Your task to perform on an android device: Open Reddit.com Image 0: 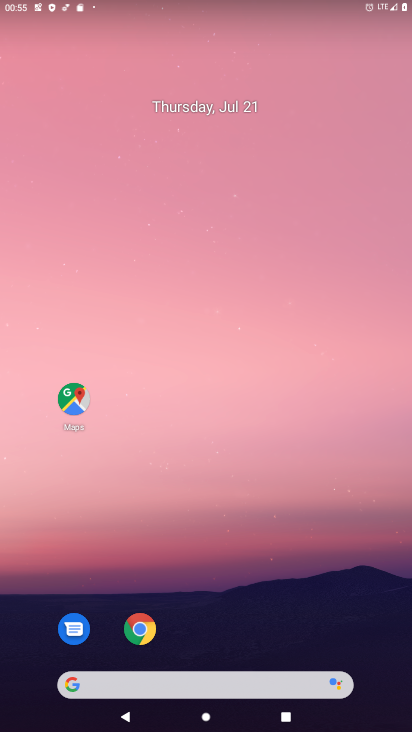
Step 0: click (226, 80)
Your task to perform on an android device: Open Reddit.com Image 1: 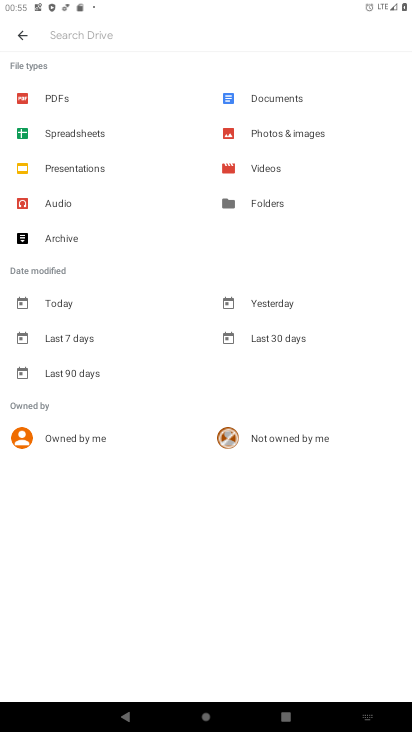
Step 1: press home button
Your task to perform on an android device: Open Reddit.com Image 2: 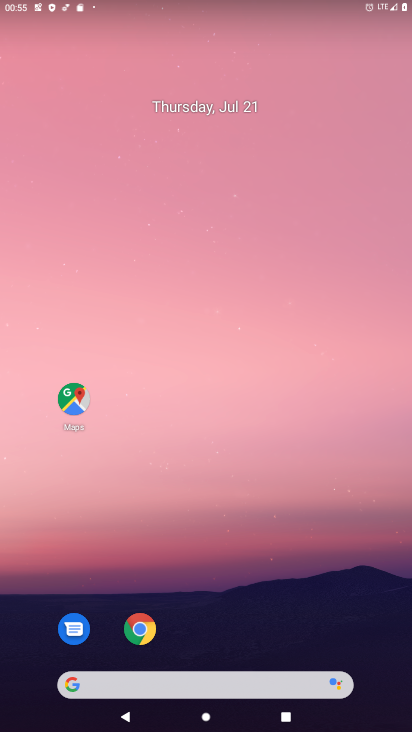
Step 2: drag from (281, 561) to (196, 134)
Your task to perform on an android device: Open Reddit.com Image 3: 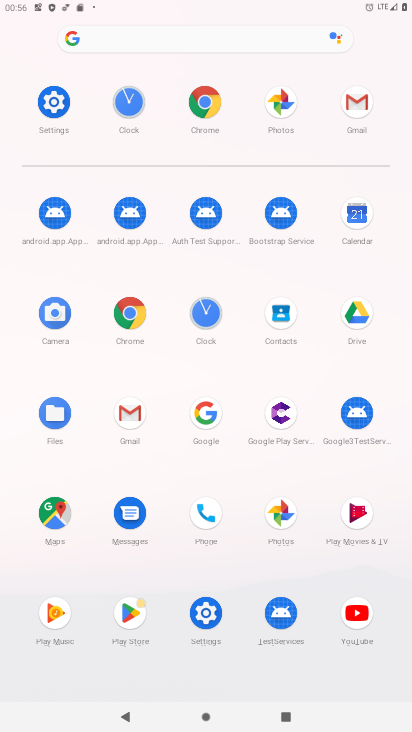
Step 3: click (131, 314)
Your task to perform on an android device: Open Reddit.com Image 4: 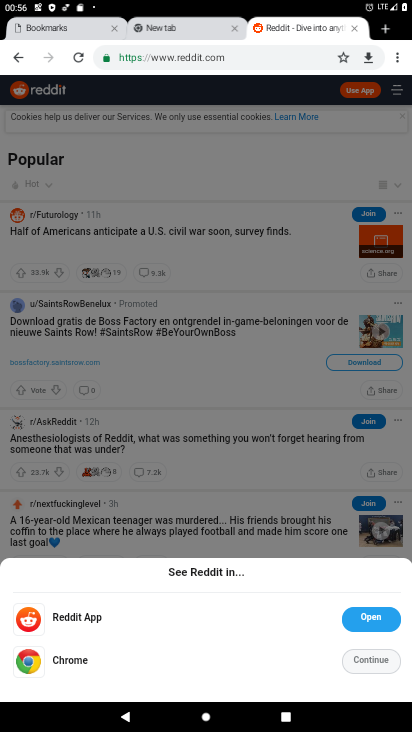
Step 4: task complete